Your task to perform on an android device: turn on sleep mode Image 0: 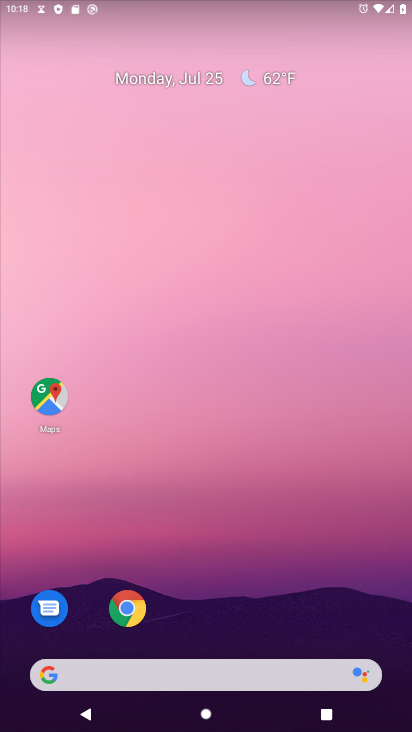
Step 0: drag from (201, 679) to (279, 212)
Your task to perform on an android device: turn on sleep mode Image 1: 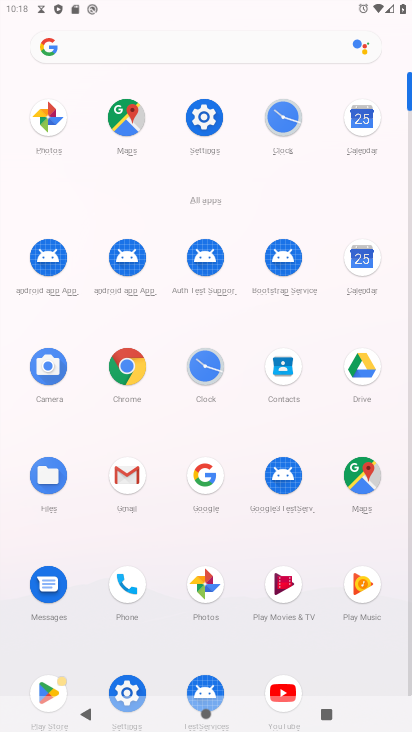
Step 1: click (204, 117)
Your task to perform on an android device: turn on sleep mode Image 2: 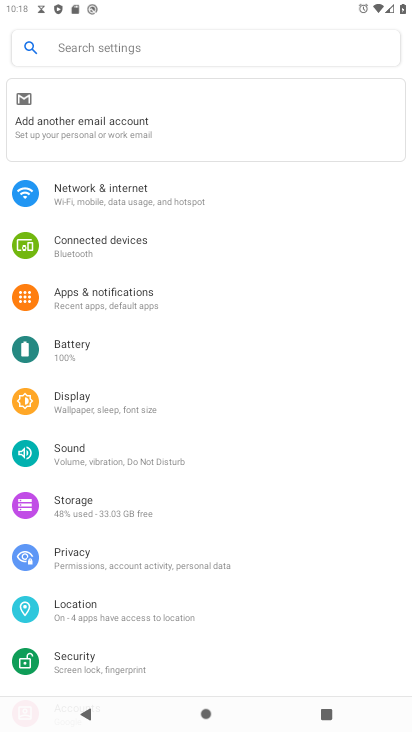
Step 2: drag from (106, 496) to (155, 393)
Your task to perform on an android device: turn on sleep mode Image 3: 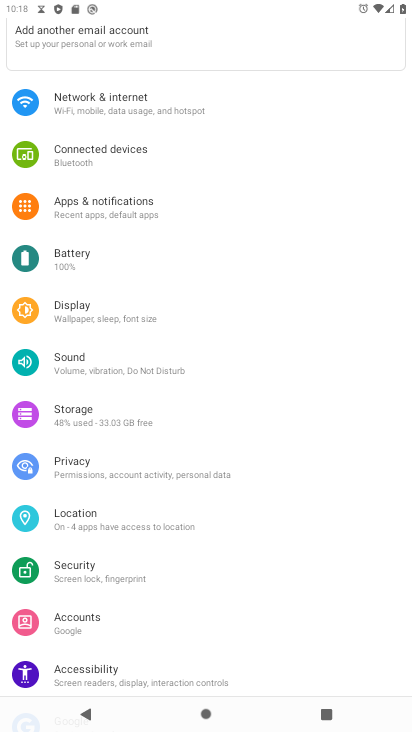
Step 3: click (96, 323)
Your task to perform on an android device: turn on sleep mode Image 4: 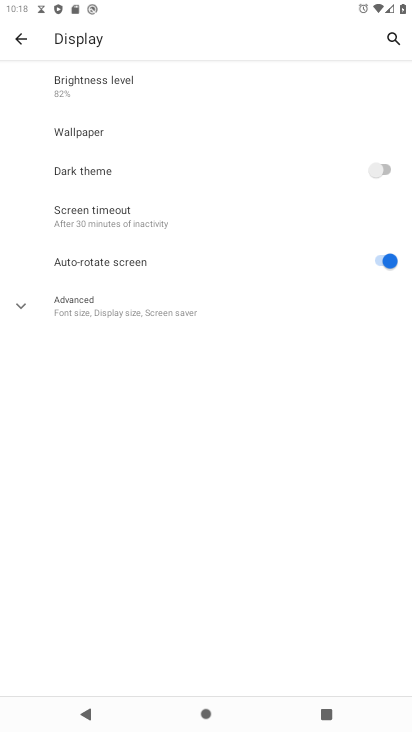
Step 4: click (119, 226)
Your task to perform on an android device: turn on sleep mode Image 5: 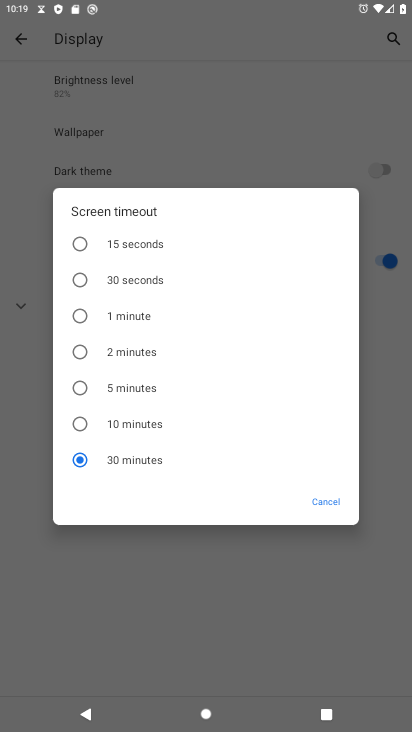
Step 5: click (341, 504)
Your task to perform on an android device: turn on sleep mode Image 6: 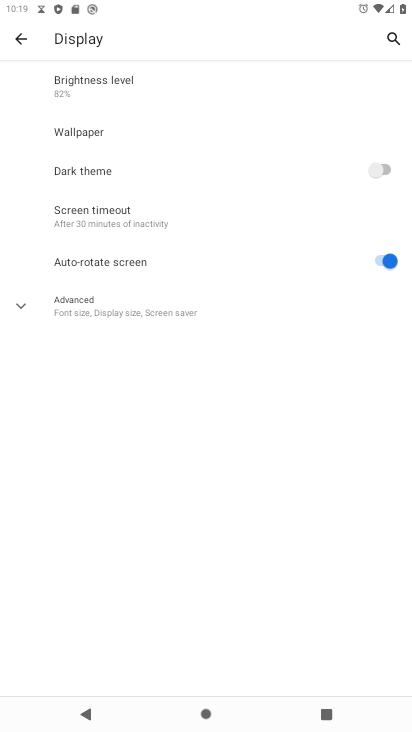
Step 6: task complete